Your task to perform on an android device: Clear the shopping cart on newegg.com. Add "logitech g pro" to the cart on newegg.com, then select checkout. Image 0: 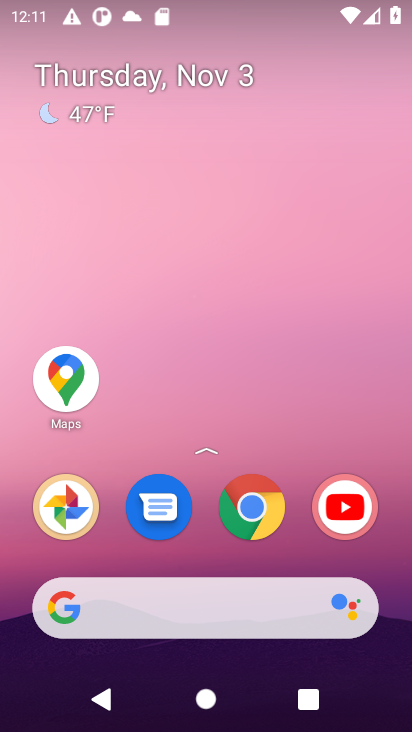
Step 0: click (249, 593)
Your task to perform on an android device: Clear the shopping cart on newegg.com. Add "logitech g pro" to the cart on newegg.com, then select checkout. Image 1: 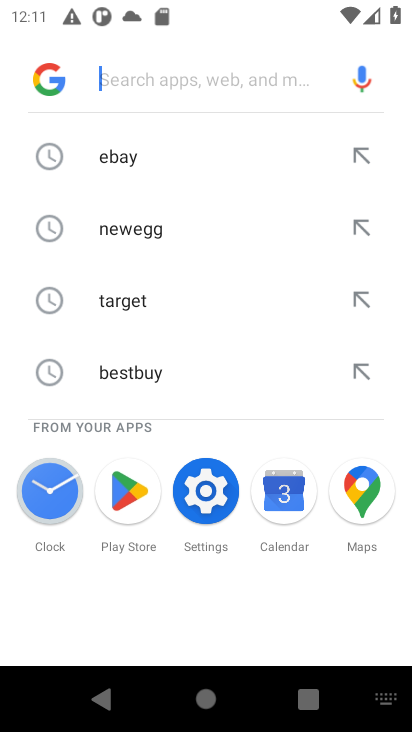
Step 1: click (181, 219)
Your task to perform on an android device: Clear the shopping cart on newegg.com. Add "logitech g pro" to the cart on newegg.com, then select checkout. Image 2: 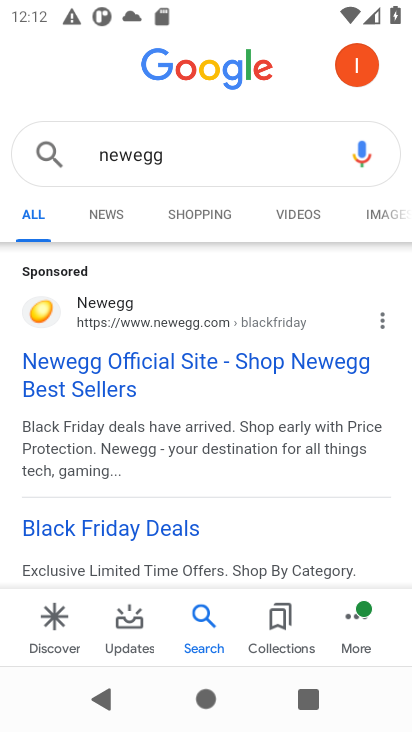
Step 2: click (162, 375)
Your task to perform on an android device: Clear the shopping cart on newegg.com. Add "logitech g pro" to the cart on newegg.com, then select checkout. Image 3: 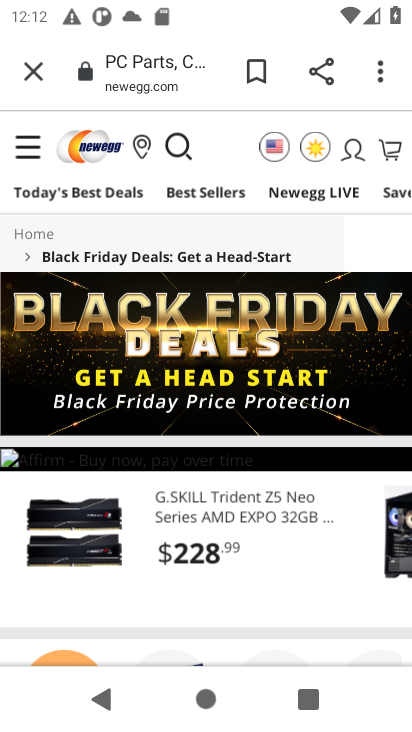
Step 3: task complete